Your task to perform on an android device: show emergency info Image 0: 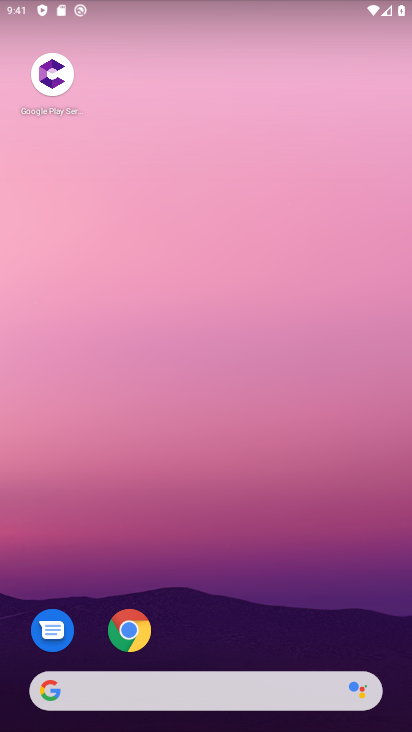
Step 0: drag from (256, 623) to (189, 108)
Your task to perform on an android device: show emergency info Image 1: 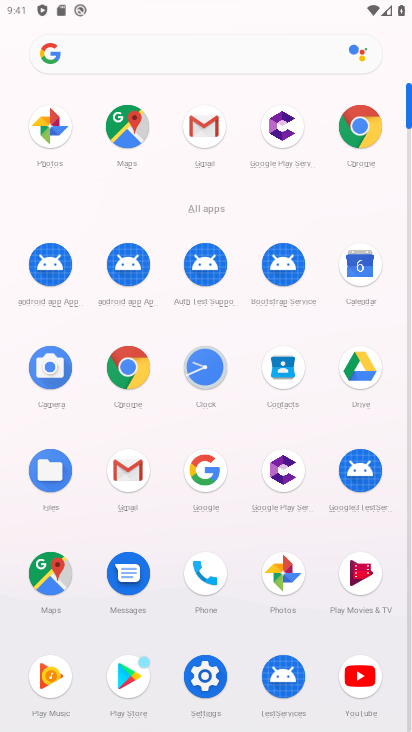
Step 1: click (216, 675)
Your task to perform on an android device: show emergency info Image 2: 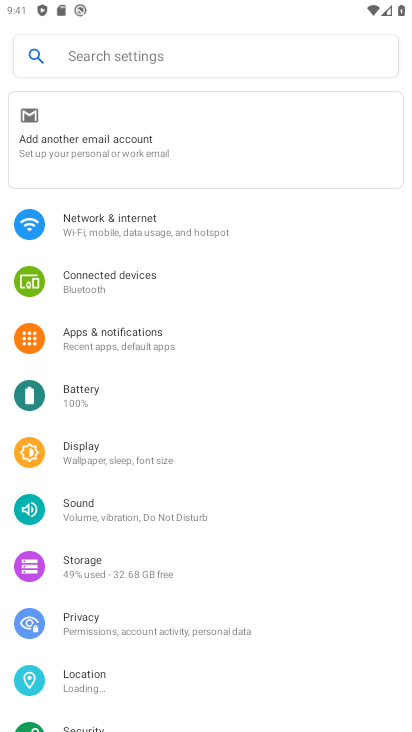
Step 2: drag from (201, 647) to (207, 338)
Your task to perform on an android device: show emergency info Image 3: 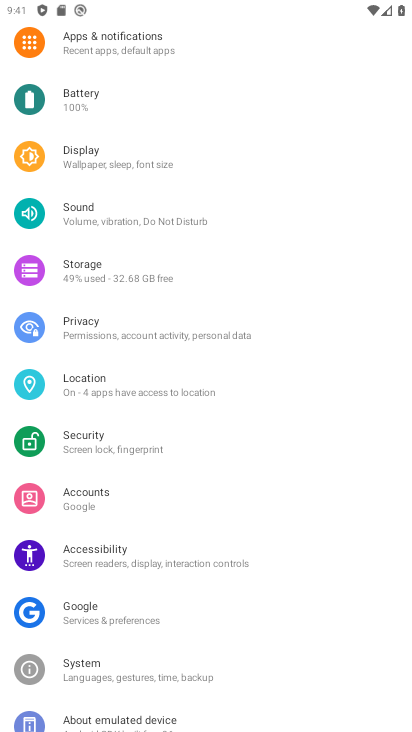
Step 3: drag from (98, 628) to (110, 431)
Your task to perform on an android device: show emergency info Image 4: 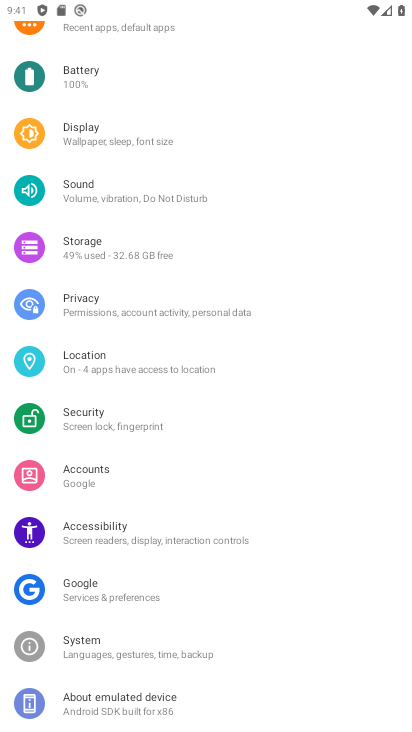
Step 4: click (138, 702)
Your task to perform on an android device: show emergency info Image 5: 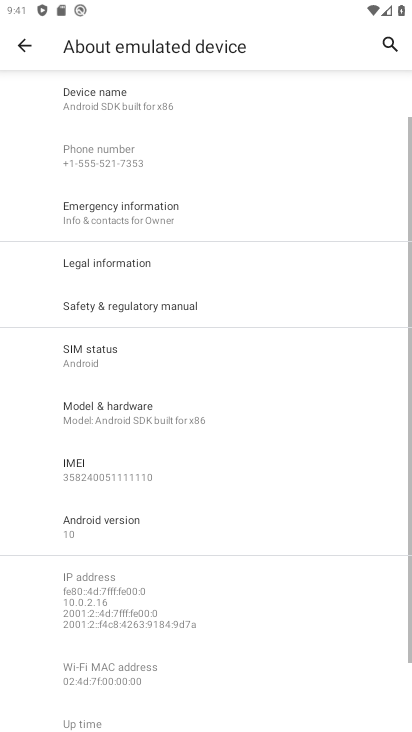
Step 5: click (150, 215)
Your task to perform on an android device: show emergency info Image 6: 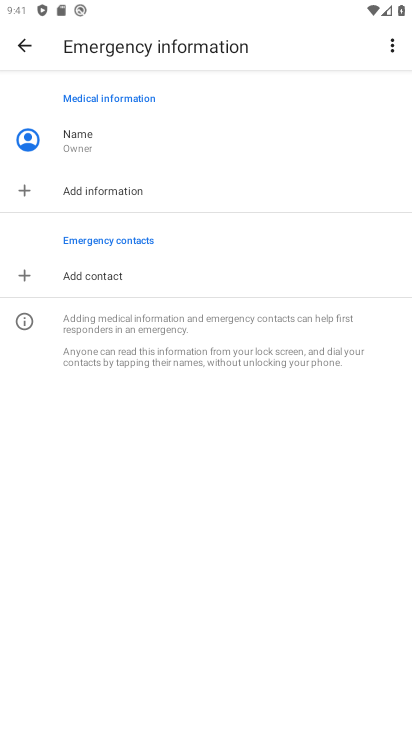
Step 6: task complete